Your task to perform on an android device: toggle sleep mode Image 0: 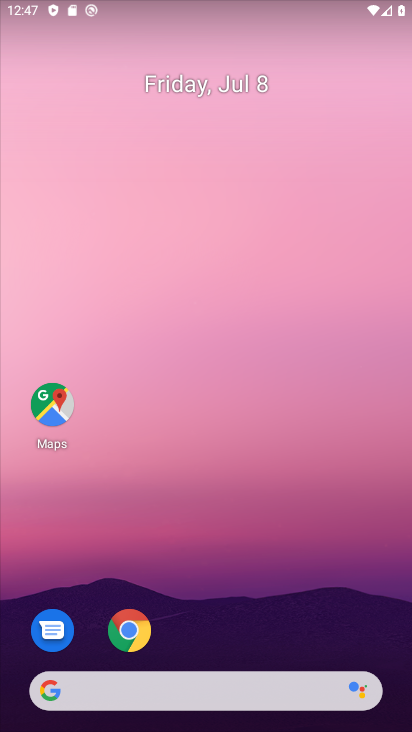
Step 0: drag from (266, 687) to (321, 109)
Your task to perform on an android device: toggle sleep mode Image 1: 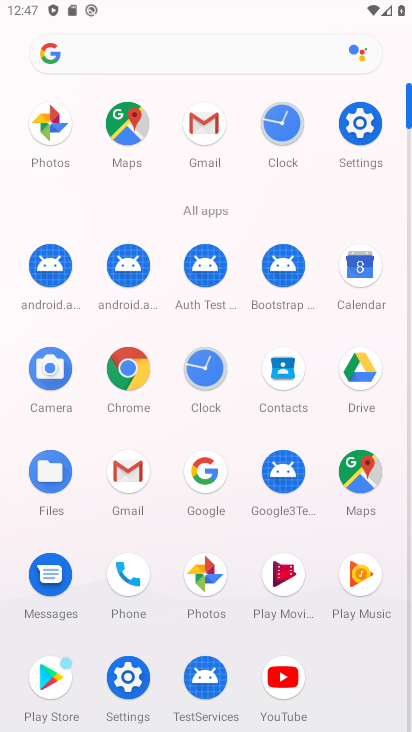
Step 1: click (377, 121)
Your task to perform on an android device: toggle sleep mode Image 2: 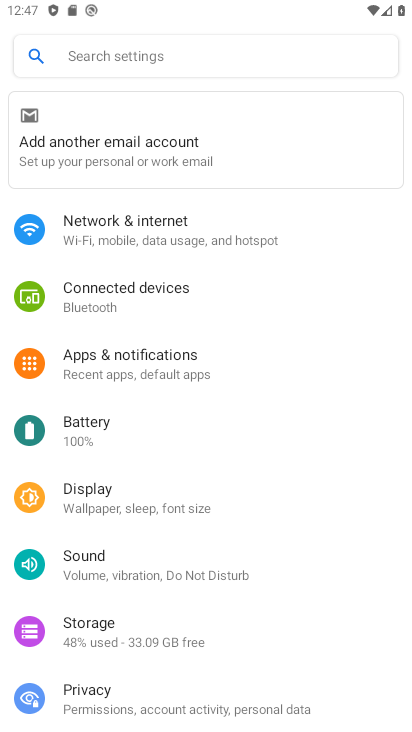
Step 2: click (127, 489)
Your task to perform on an android device: toggle sleep mode Image 3: 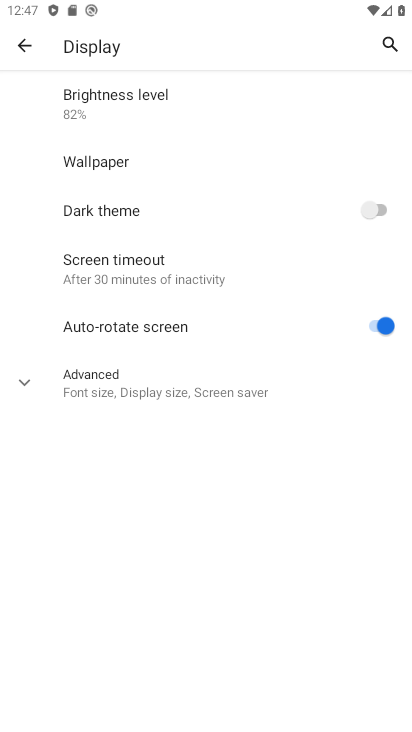
Step 3: task complete